Your task to perform on an android device: Open the Play Movies app and select the watchlist tab. Image 0: 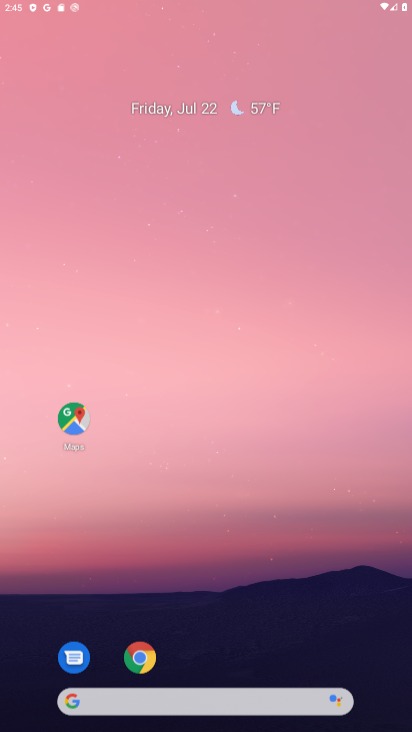
Step 0: drag from (338, 0) to (393, 13)
Your task to perform on an android device: Open the Play Movies app and select the watchlist tab. Image 1: 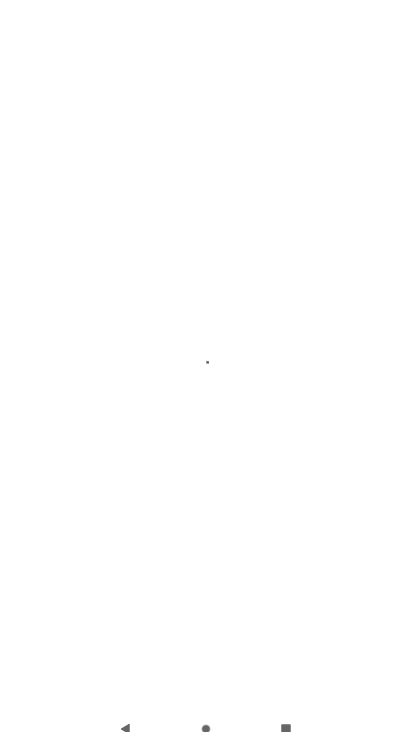
Step 1: press home button
Your task to perform on an android device: Open the Play Movies app and select the watchlist tab. Image 2: 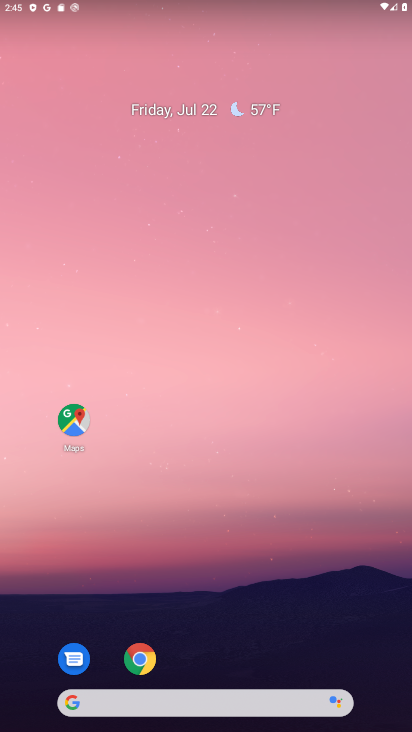
Step 2: drag from (228, 593) to (266, 116)
Your task to perform on an android device: Open the Play Movies app and select the watchlist tab. Image 3: 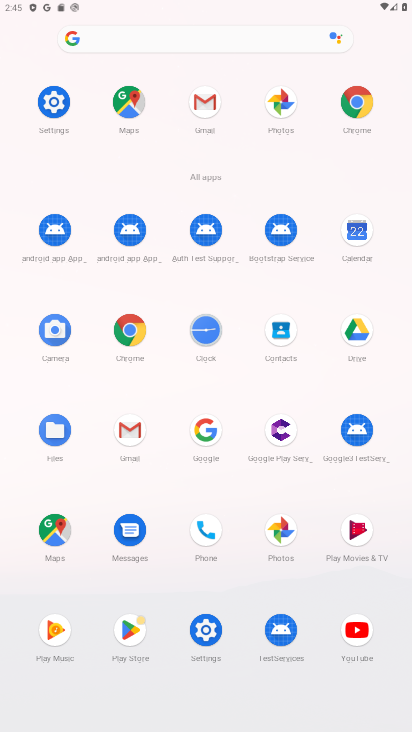
Step 3: click (339, 534)
Your task to perform on an android device: Open the Play Movies app and select the watchlist tab. Image 4: 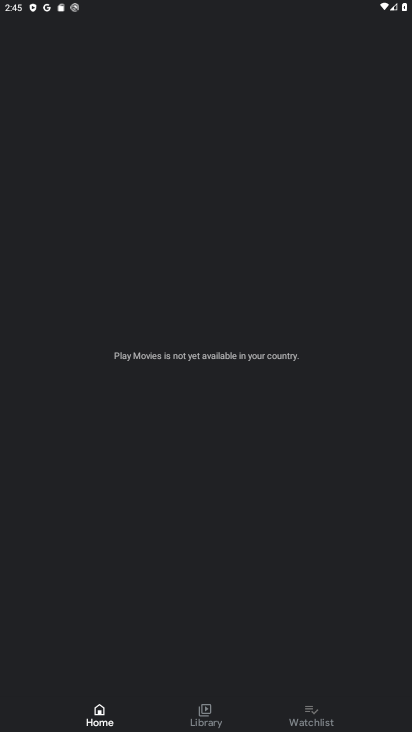
Step 4: click (311, 721)
Your task to perform on an android device: Open the Play Movies app and select the watchlist tab. Image 5: 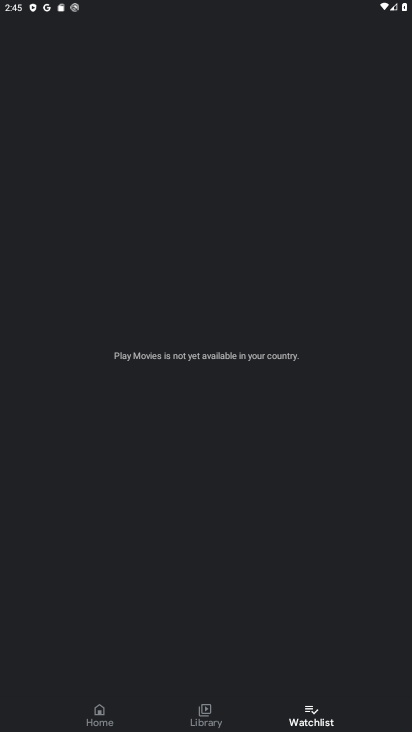
Step 5: task complete